Your task to perform on an android device: make emails show in primary in the gmail app Image 0: 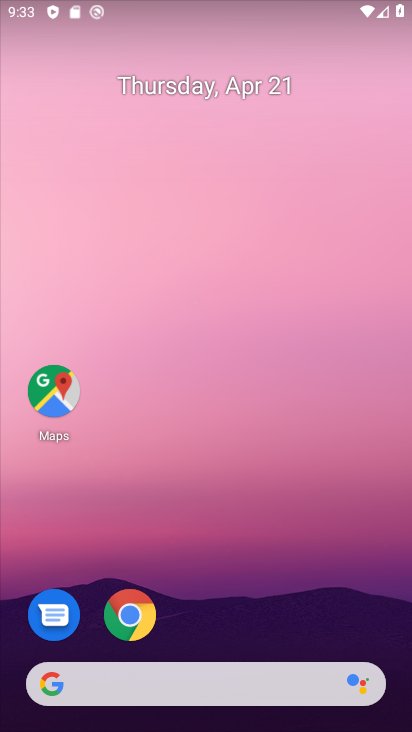
Step 0: drag from (187, 584) to (182, 207)
Your task to perform on an android device: make emails show in primary in the gmail app Image 1: 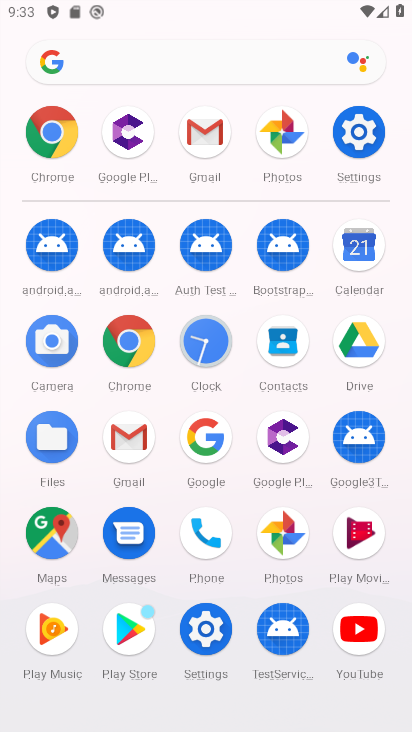
Step 1: click (196, 134)
Your task to perform on an android device: make emails show in primary in the gmail app Image 2: 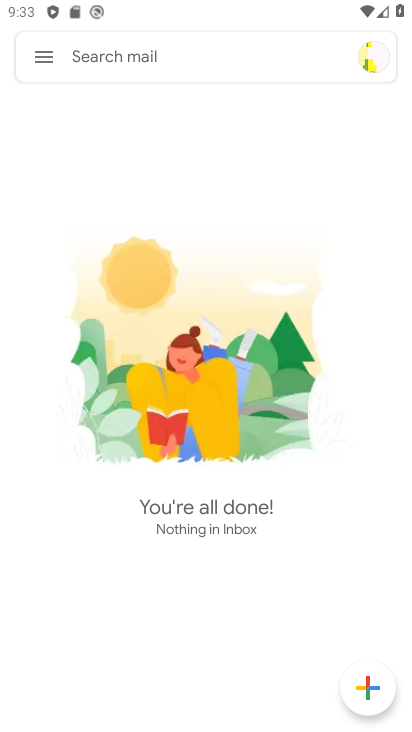
Step 2: click (38, 56)
Your task to perform on an android device: make emails show in primary in the gmail app Image 3: 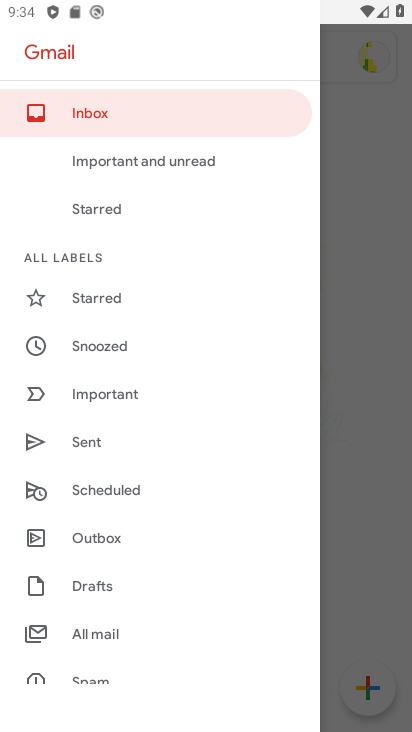
Step 3: drag from (104, 646) to (104, 267)
Your task to perform on an android device: make emails show in primary in the gmail app Image 4: 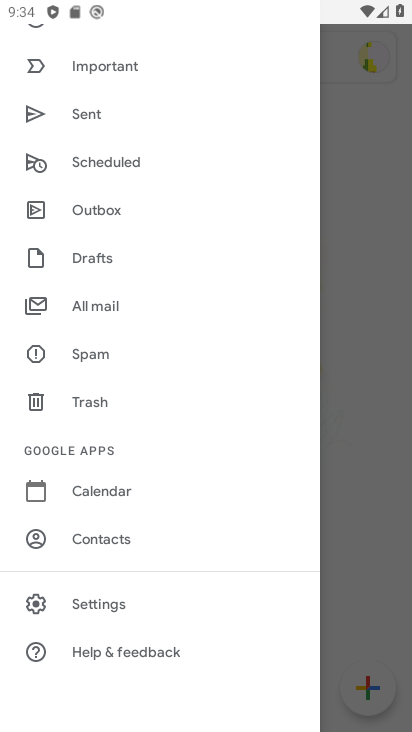
Step 4: click (111, 601)
Your task to perform on an android device: make emails show in primary in the gmail app Image 5: 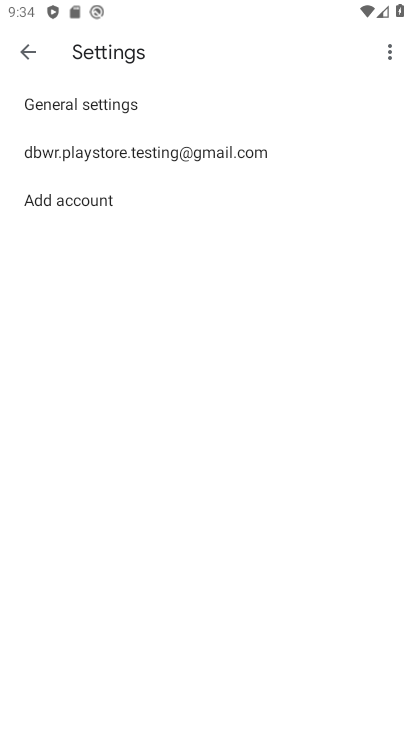
Step 5: click (157, 154)
Your task to perform on an android device: make emails show in primary in the gmail app Image 6: 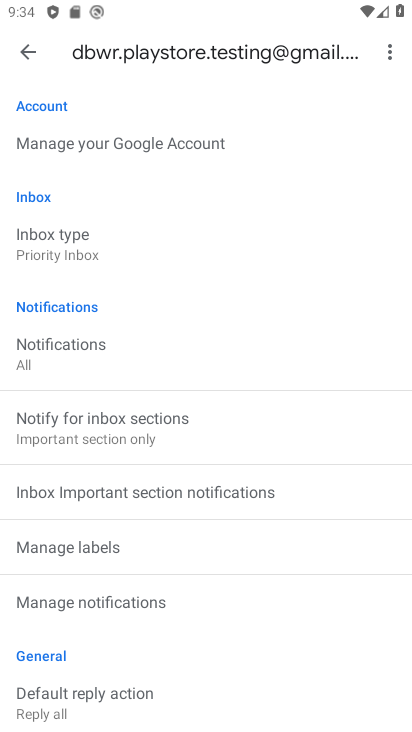
Step 6: click (55, 249)
Your task to perform on an android device: make emails show in primary in the gmail app Image 7: 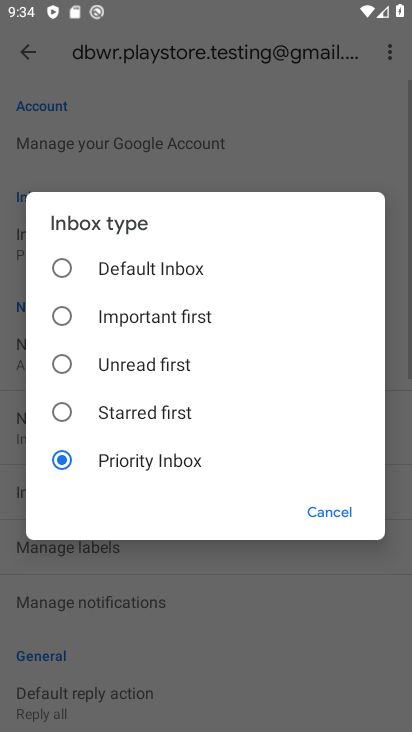
Step 7: click (64, 260)
Your task to perform on an android device: make emails show in primary in the gmail app Image 8: 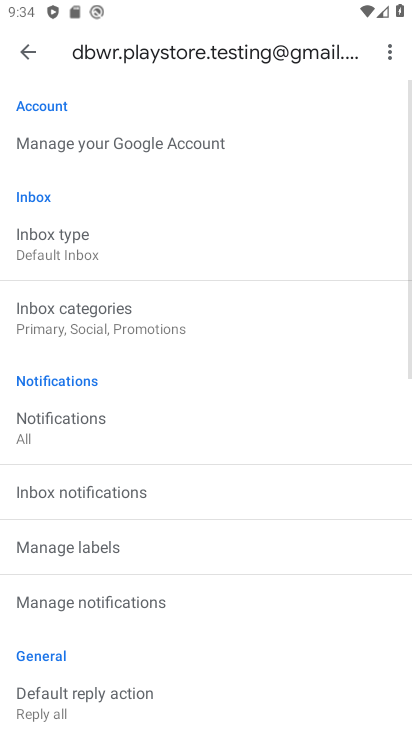
Step 8: click (82, 328)
Your task to perform on an android device: make emails show in primary in the gmail app Image 9: 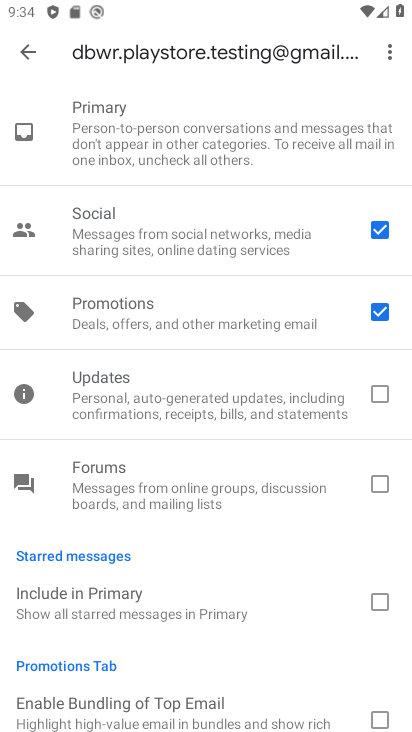
Step 9: click (372, 313)
Your task to perform on an android device: make emails show in primary in the gmail app Image 10: 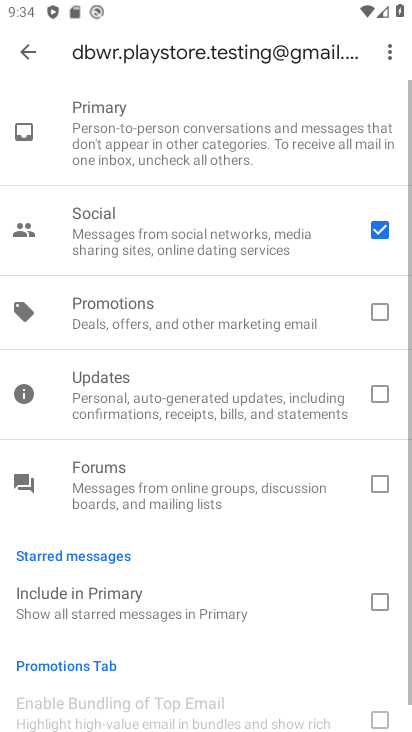
Step 10: click (376, 231)
Your task to perform on an android device: make emails show in primary in the gmail app Image 11: 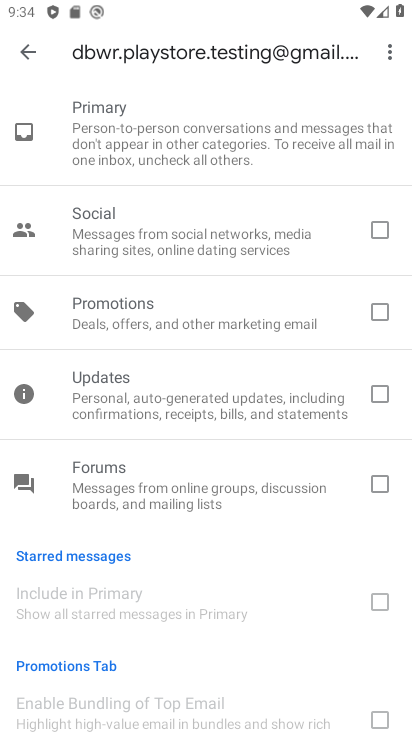
Step 11: click (28, 51)
Your task to perform on an android device: make emails show in primary in the gmail app Image 12: 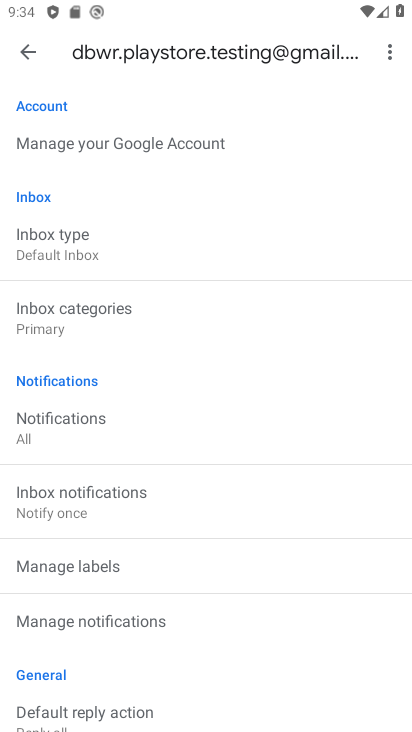
Step 12: task complete